Your task to perform on an android device: Go to ESPN.com Image 0: 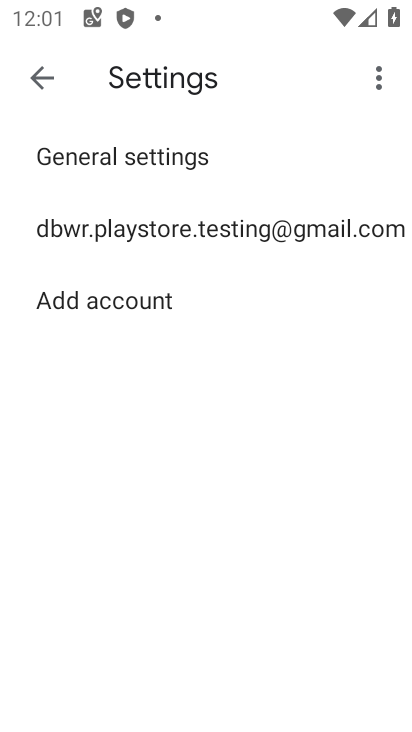
Step 0: press home button
Your task to perform on an android device: Go to ESPN.com Image 1: 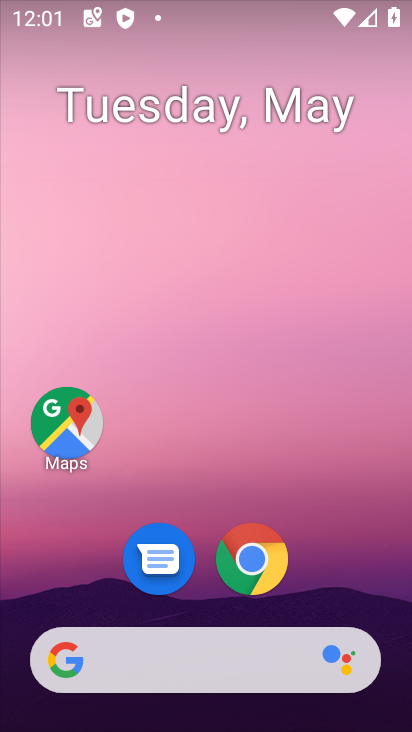
Step 1: click (255, 590)
Your task to perform on an android device: Go to ESPN.com Image 2: 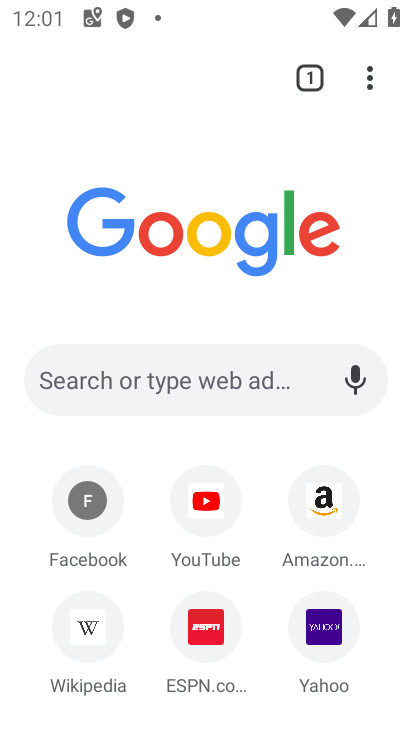
Step 2: click (216, 365)
Your task to perform on an android device: Go to ESPN.com Image 3: 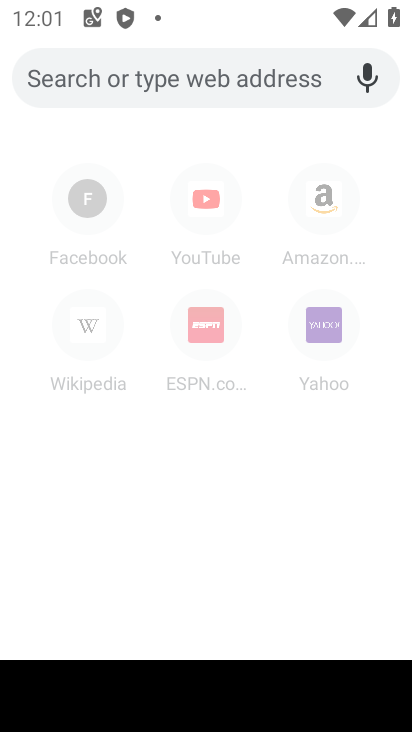
Step 3: click (237, 325)
Your task to perform on an android device: Go to ESPN.com Image 4: 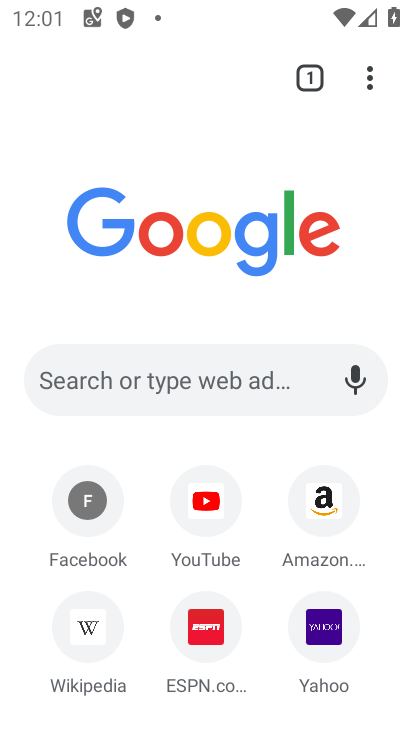
Step 4: click (200, 664)
Your task to perform on an android device: Go to ESPN.com Image 5: 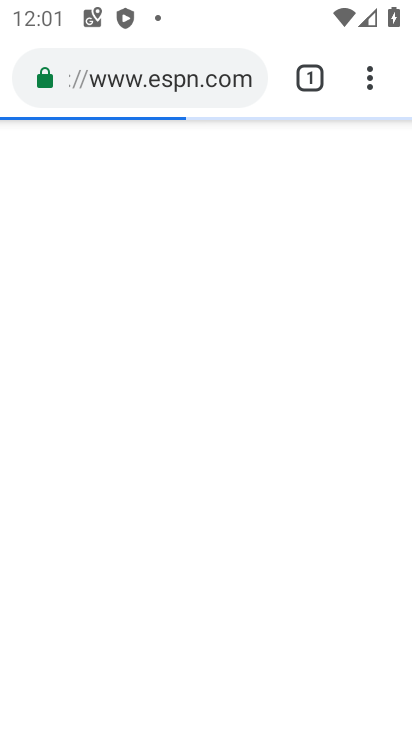
Step 5: task complete